Your task to perform on an android device: Open Google Image 0: 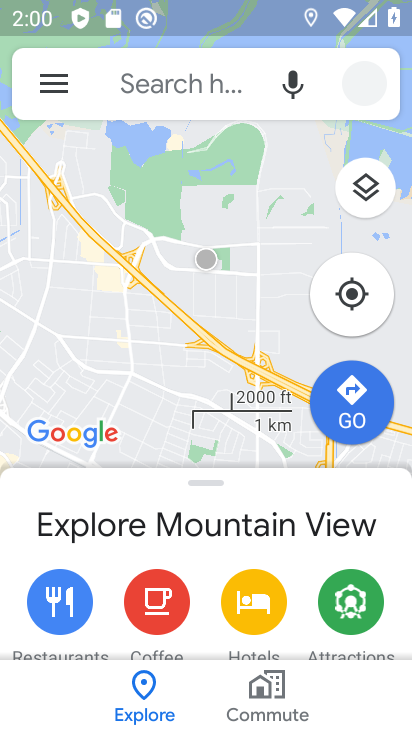
Step 0: drag from (190, 513) to (271, 94)
Your task to perform on an android device: Open Google Image 1: 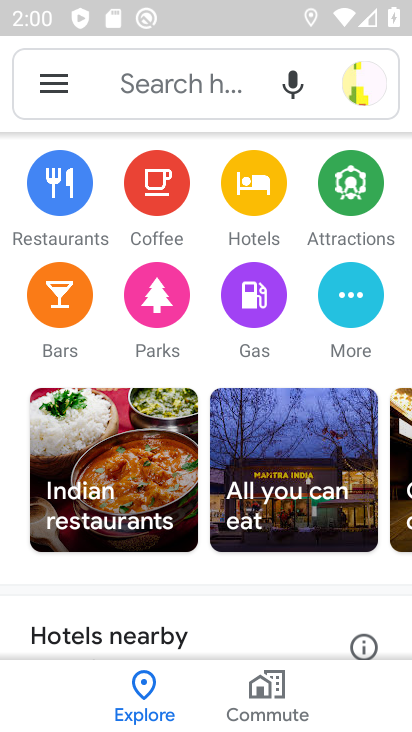
Step 1: task complete